Your task to perform on an android device: change your default location settings in chrome Image 0: 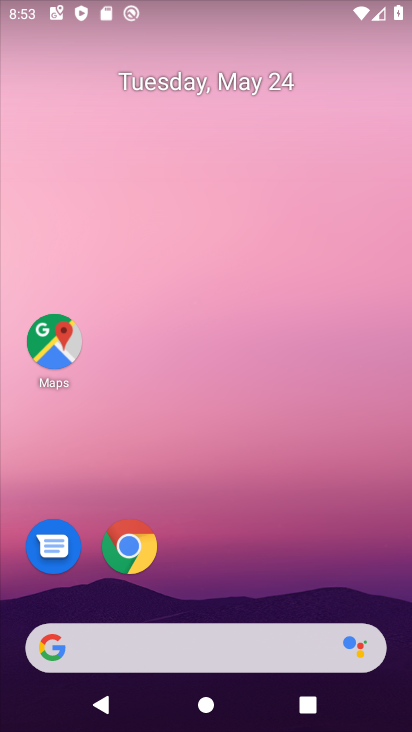
Step 0: click (125, 549)
Your task to perform on an android device: change your default location settings in chrome Image 1: 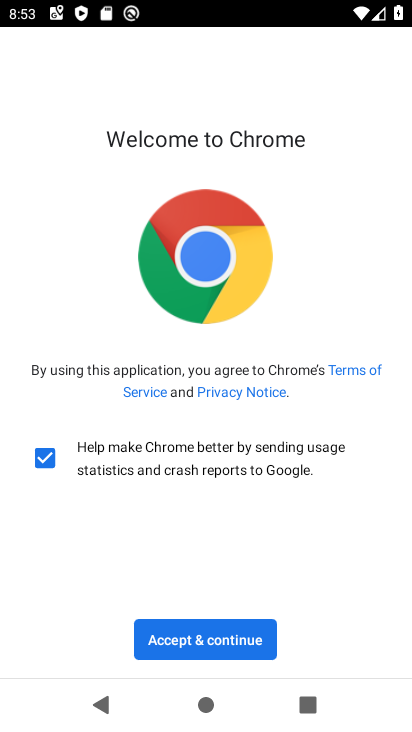
Step 1: click (206, 644)
Your task to perform on an android device: change your default location settings in chrome Image 2: 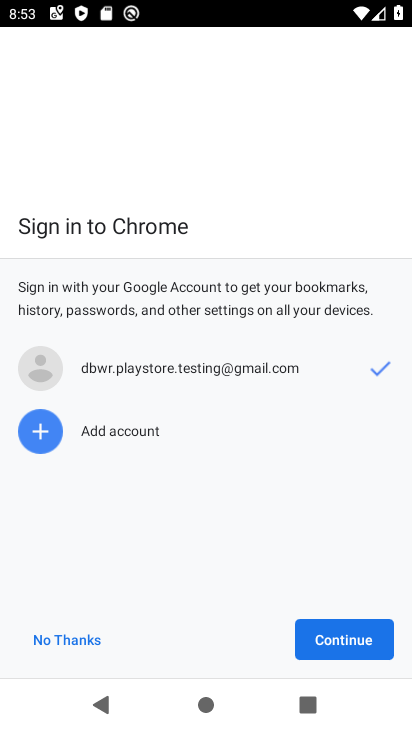
Step 2: click (305, 644)
Your task to perform on an android device: change your default location settings in chrome Image 3: 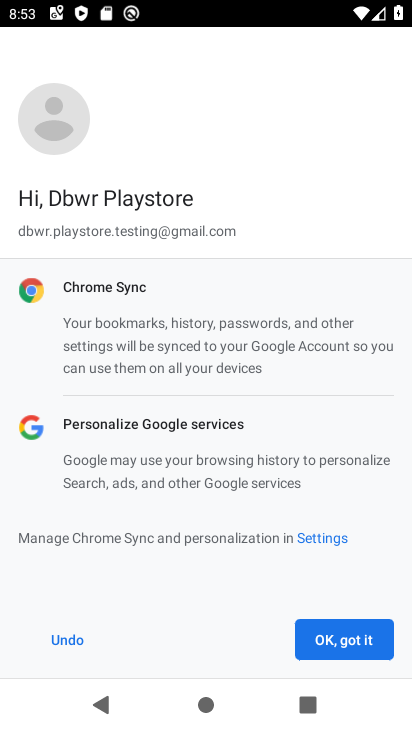
Step 3: click (305, 644)
Your task to perform on an android device: change your default location settings in chrome Image 4: 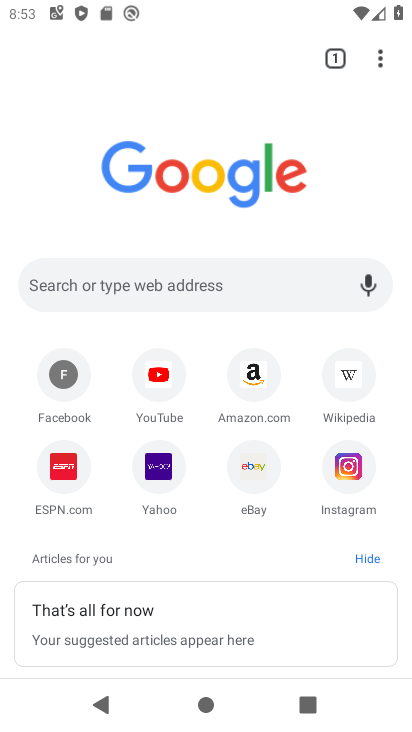
Step 4: click (382, 41)
Your task to perform on an android device: change your default location settings in chrome Image 5: 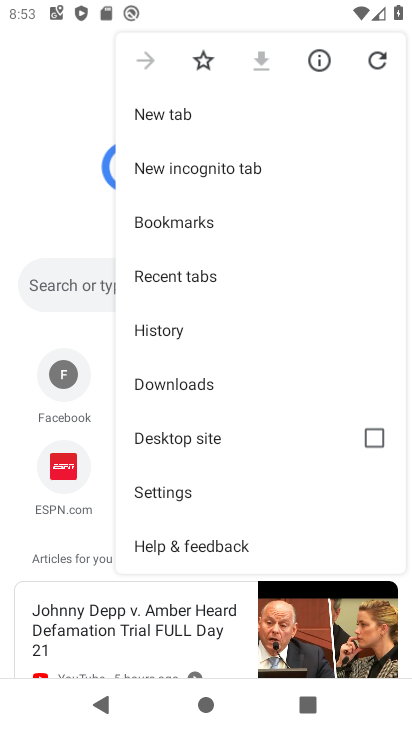
Step 5: click (183, 490)
Your task to perform on an android device: change your default location settings in chrome Image 6: 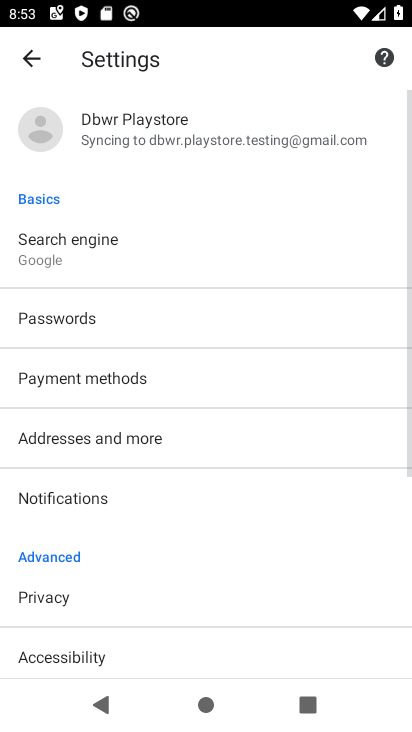
Step 6: drag from (132, 656) to (208, 230)
Your task to perform on an android device: change your default location settings in chrome Image 7: 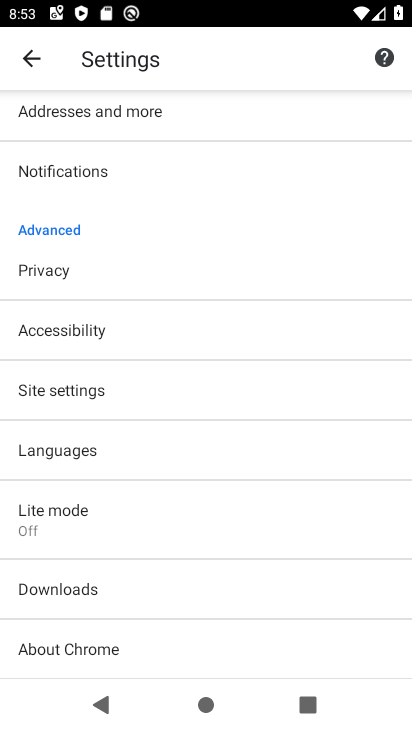
Step 7: click (53, 391)
Your task to perform on an android device: change your default location settings in chrome Image 8: 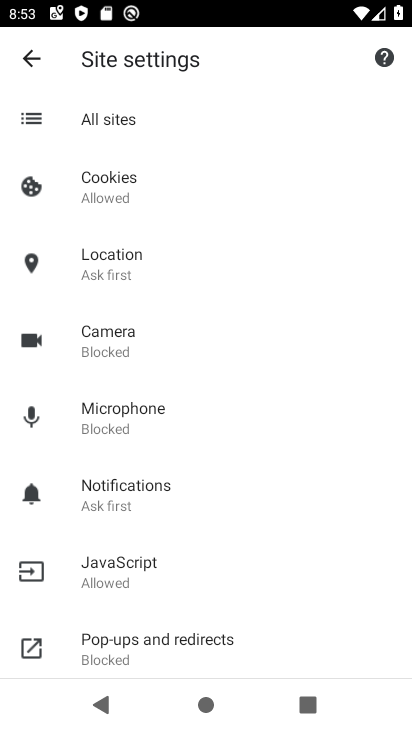
Step 8: click (127, 275)
Your task to perform on an android device: change your default location settings in chrome Image 9: 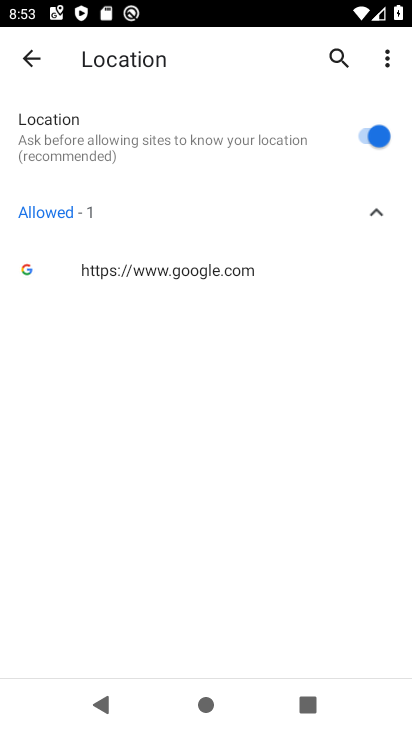
Step 9: click (373, 133)
Your task to perform on an android device: change your default location settings in chrome Image 10: 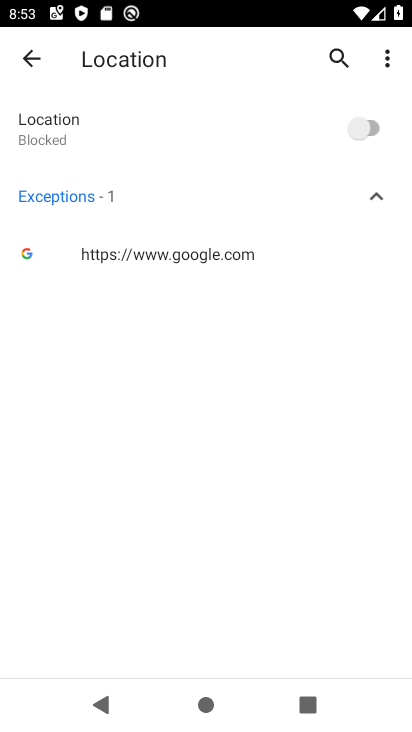
Step 10: task complete